Your task to perform on an android device: Go to internet settings Image 0: 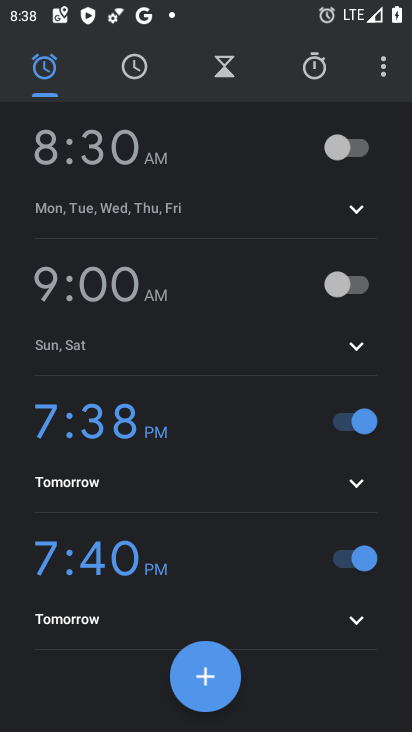
Step 0: press home button
Your task to perform on an android device: Go to internet settings Image 1: 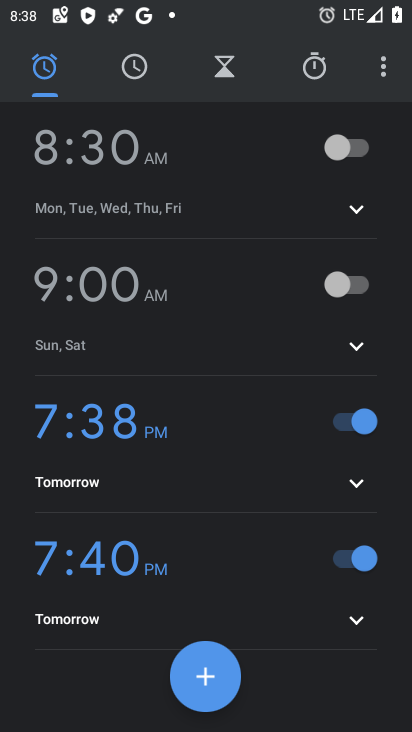
Step 1: press home button
Your task to perform on an android device: Go to internet settings Image 2: 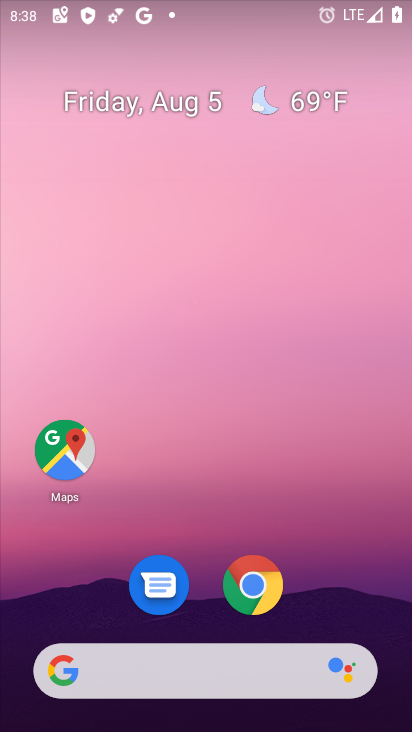
Step 2: drag from (324, 560) to (369, 41)
Your task to perform on an android device: Go to internet settings Image 3: 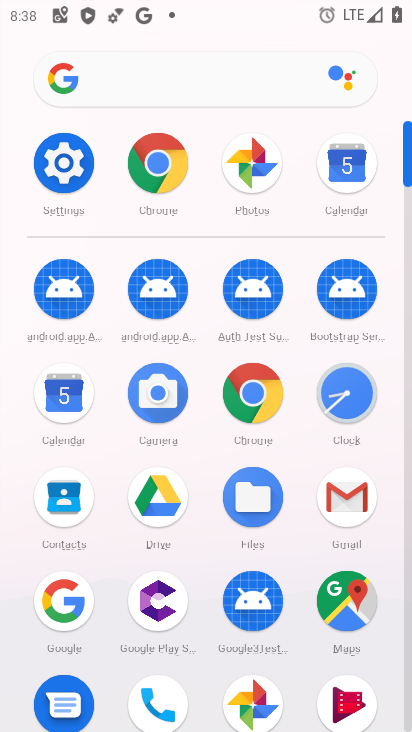
Step 3: click (59, 156)
Your task to perform on an android device: Go to internet settings Image 4: 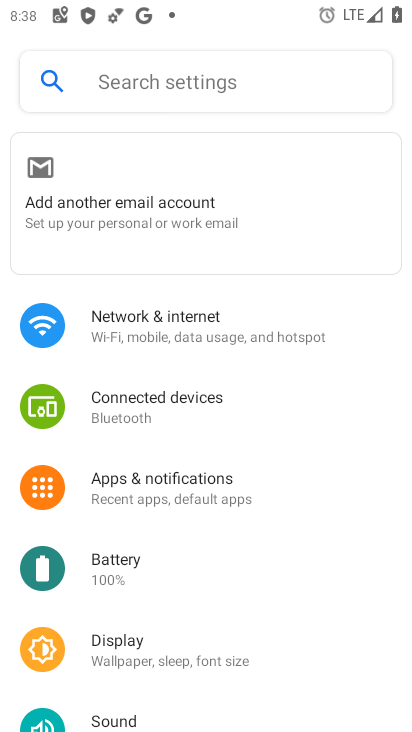
Step 4: click (189, 307)
Your task to perform on an android device: Go to internet settings Image 5: 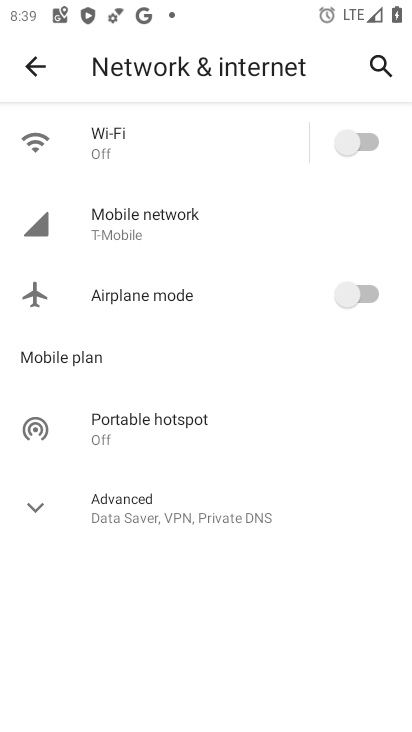
Step 5: task complete